Your task to perform on an android device: turn on the 12-hour format for clock Image 0: 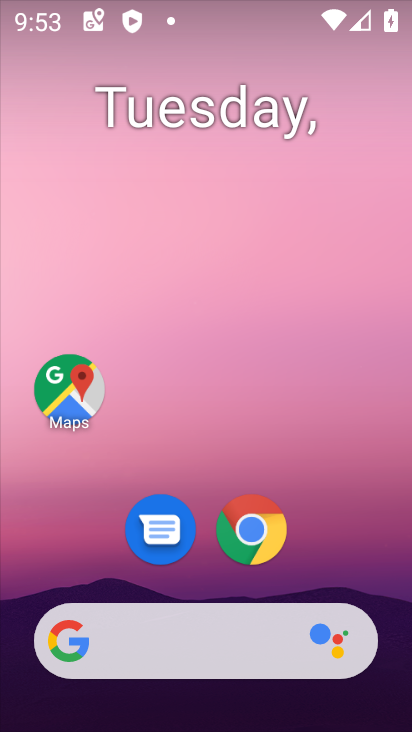
Step 0: drag from (226, 510) to (219, 174)
Your task to perform on an android device: turn on the 12-hour format for clock Image 1: 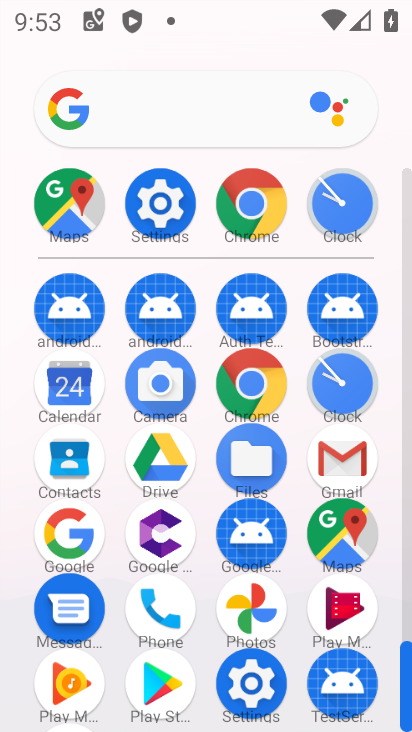
Step 1: click (352, 379)
Your task to perform on an android device: turn on the 12-hour format for clock Image 2: 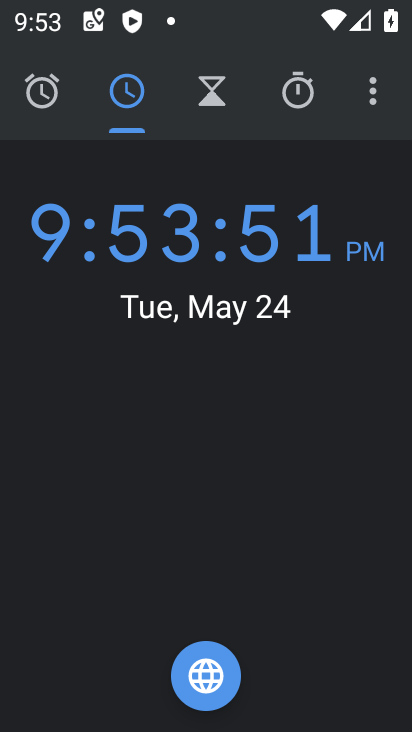
Step 2: click (381, 88)
Your task to perform on an android device: turn on the 12-hour format for clock Image 3: 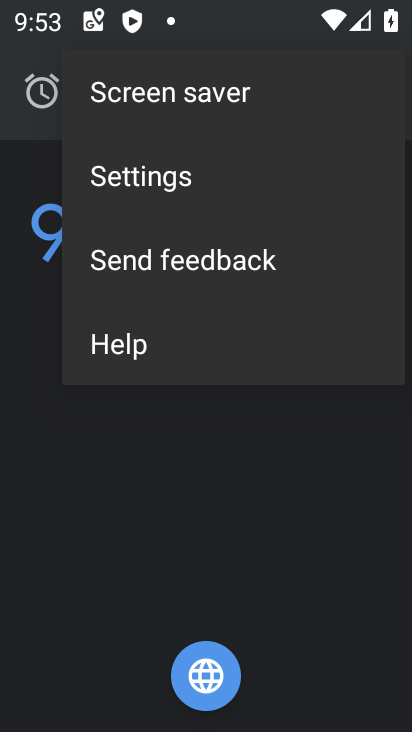
Step 3: click (229, 174)
Your task to perform on an android device: turn on the 12-hour format for clock Image 4: 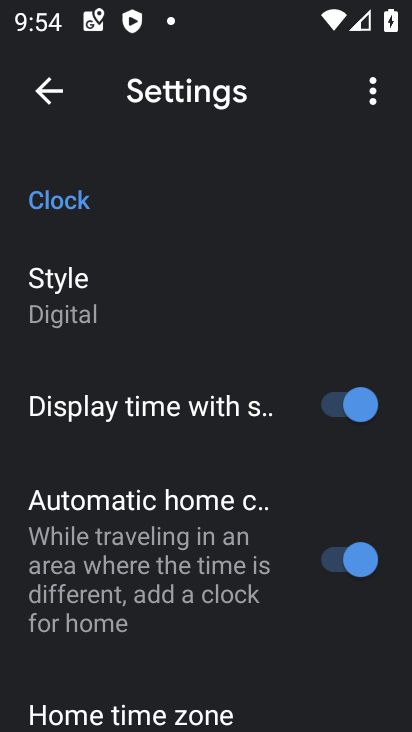
Step 4: drag from (203, 355) to (237, 105)
Your task to perform on an android device: turn on the 12-hour format for clock Image 5: 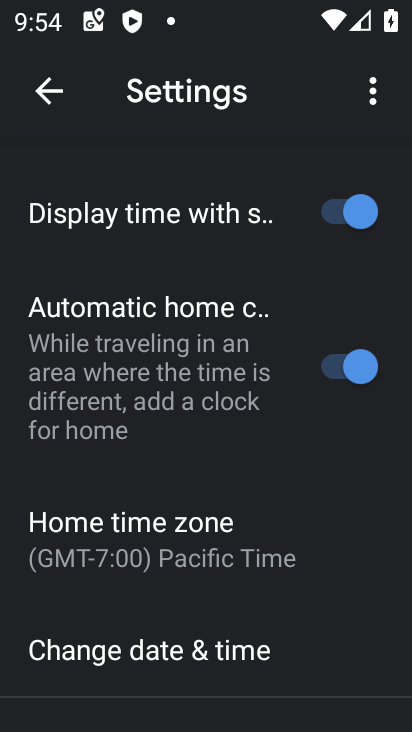
Step 5: click (196, 662)
Your task to perform on an android device: turn on the 12-hour format for clock Image 6: 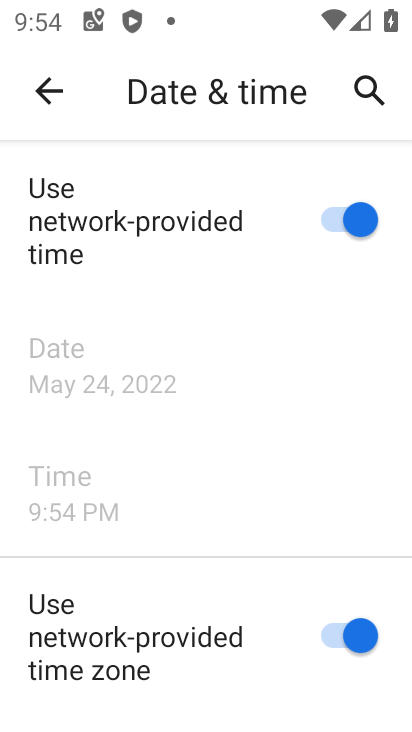
Step 6: task complete